Your task to perform on an android device: all mails in gmail Image 0: 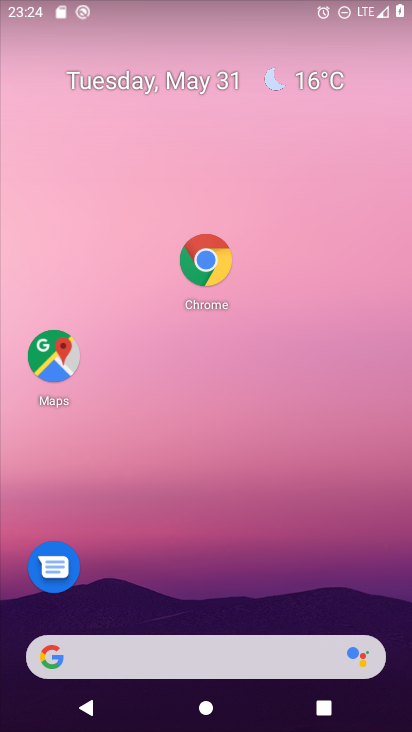
Step 0: drag from (208, 634) to (209, 6)
Your task to perform on an android device: all mails in gmail Image 1: 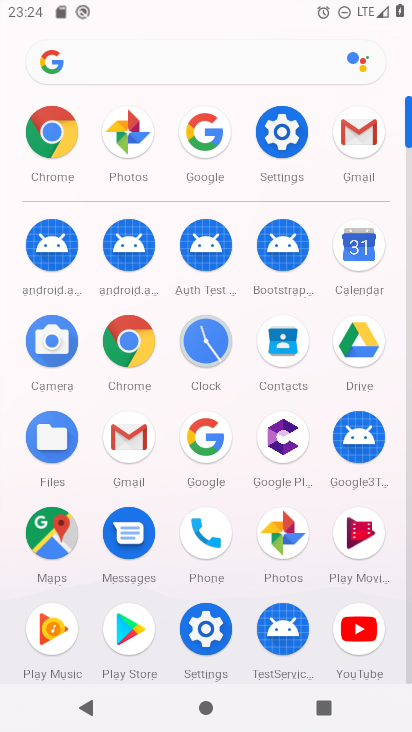
Step 1: click (143, 448)
Your task to perform on an android device: all mails in gmail Image 2: 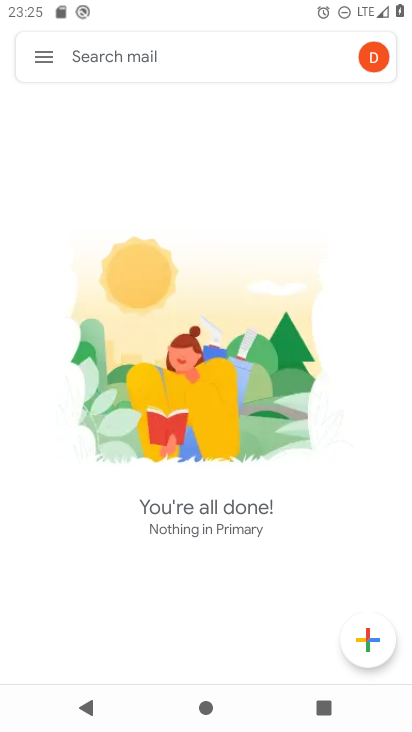
Step 2: click (40, 56)
Your task to perform on an android device: all mails in gmail Image 3: 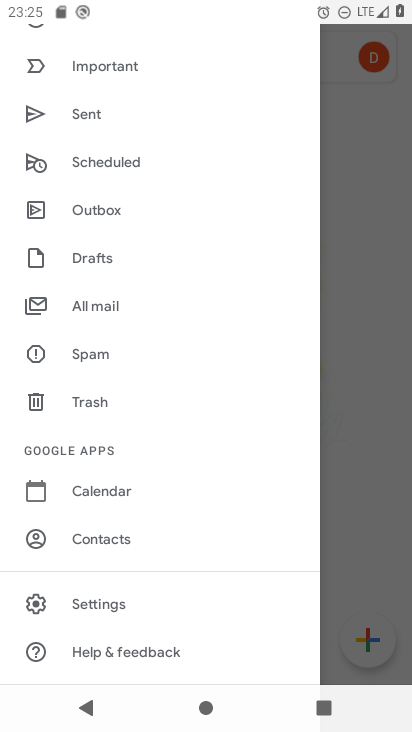
Step 3: click (94, 306)
Your task to perform on an android device: all mails in gmail Image 4: 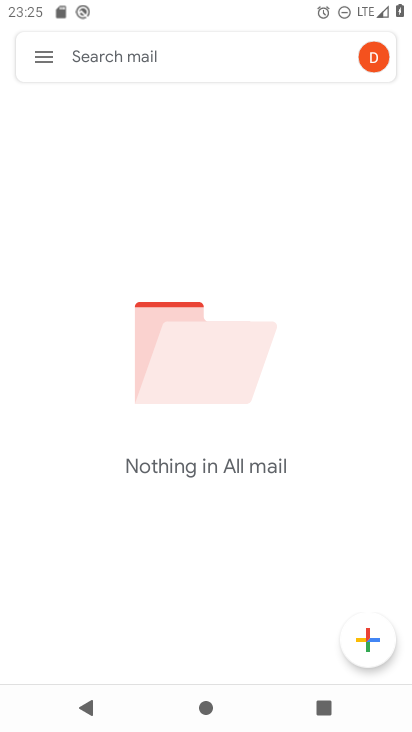
Step 4: task complete